Your task to perform on an android device: choose inbox layout in the gmail app Image 0: 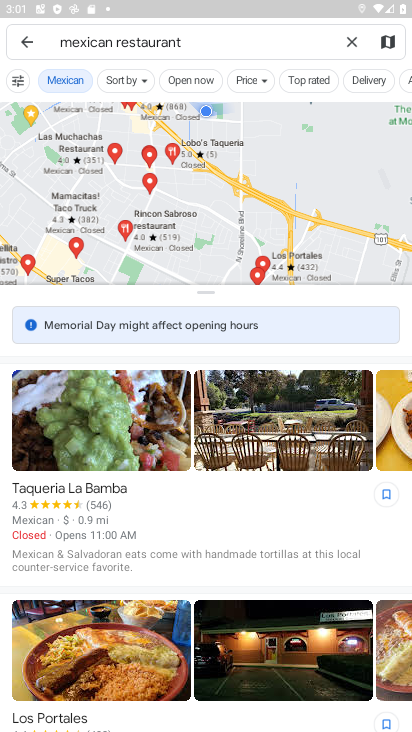
Step 0: press home button
Your task to perform on an android device: choose inbox layout in the gmail app Image 1: 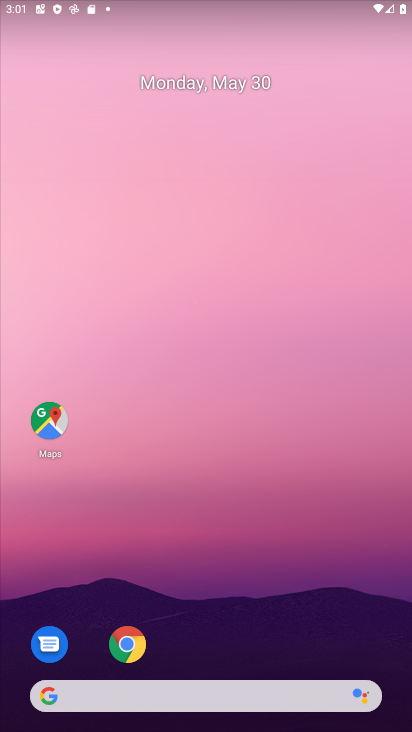
Step 1: drag from (271, 597) to (216, 28)
Your task to perform on an android device: choose inbox layout in the gmail app Image 2: 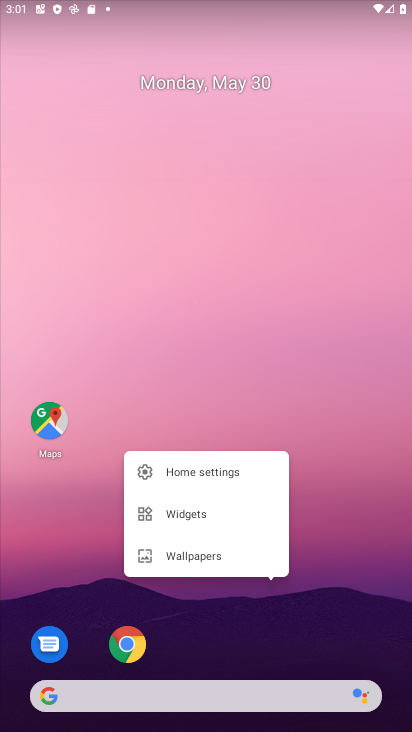
Step 2: click (364, 449)
Your task to perform on an android device: choose inbox layout in the gmail app Image 3: 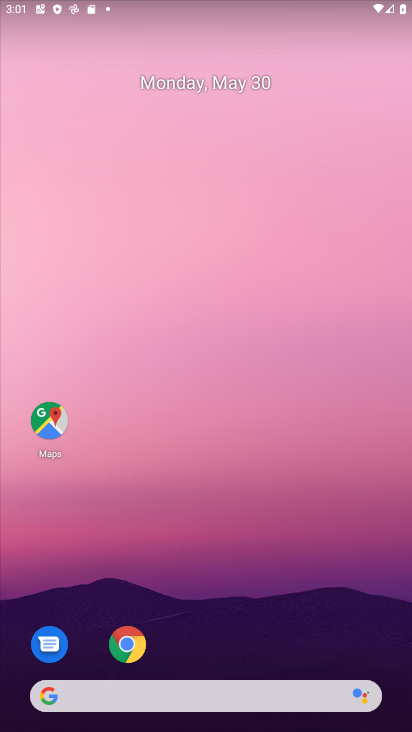
Step 3: drag from (272, 634) to (257, 142)
Your task to perform on an android device: choose inbox layout in the gmail app Image 4: 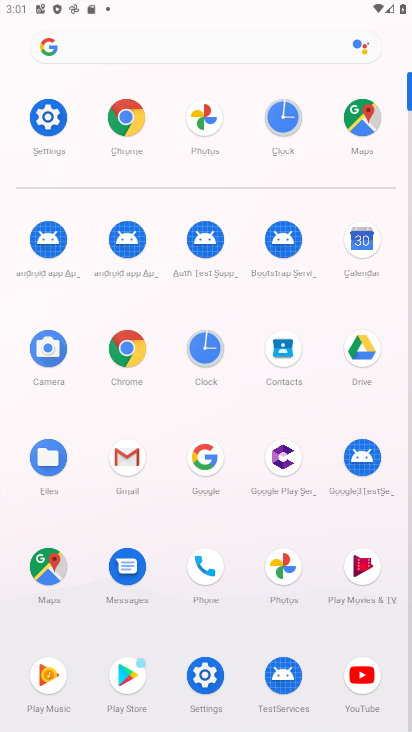
Step 4: click (117, 469)
Your task to perform on an android device: choose inbox layout in the gmail app Image 5: 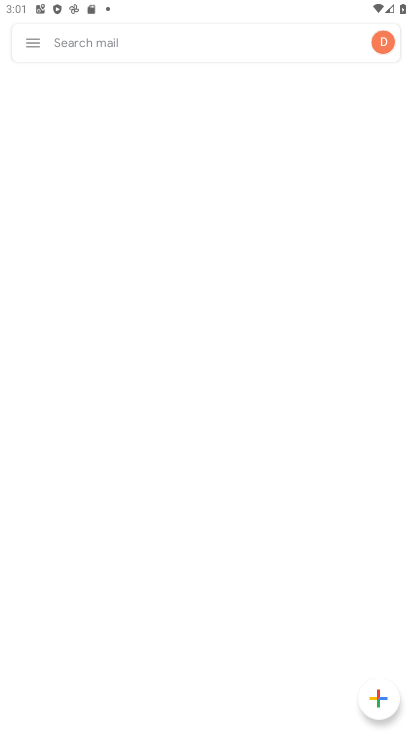
Step 5: click (31, 52)
Your task to perform on an android device: choose inbox layout in the gmail app Image 6: 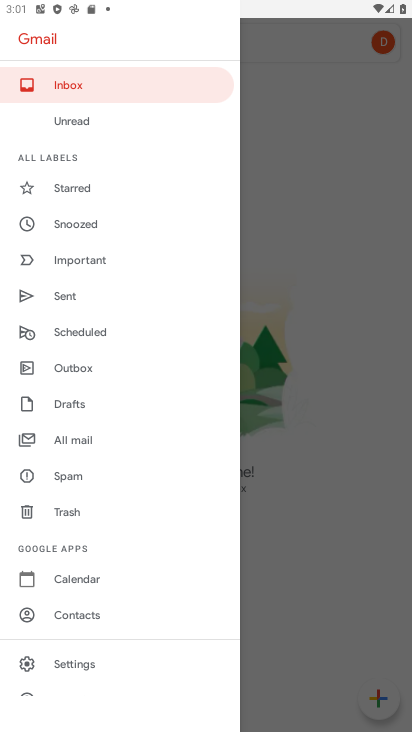
Step 6: click (112, 84)
Your task to perform on an android device: choose inbox layout in the gmail app Image 7: 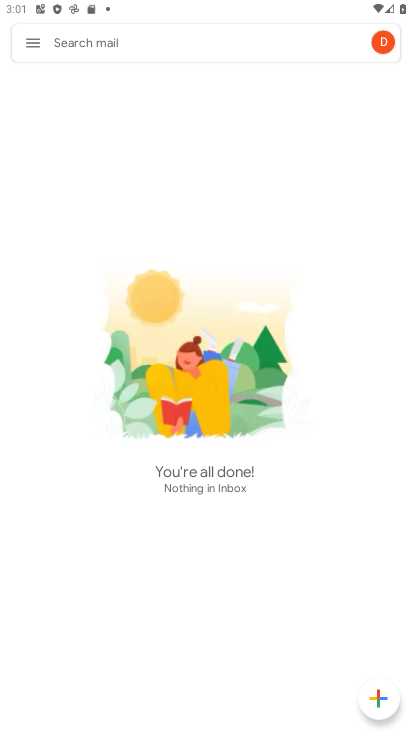
Step 7: task complete